Your task to perform on an android device: change the upload size in google photos Image 0: 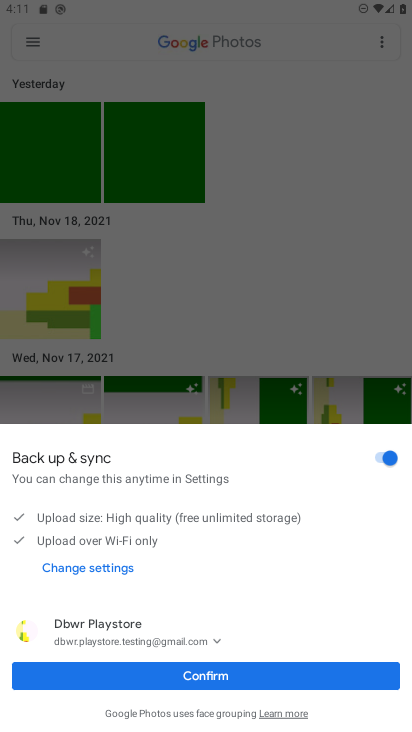
Step 0: click (117, 566)
Your task to perform on an android device: change the upload size in google photos Image 1: 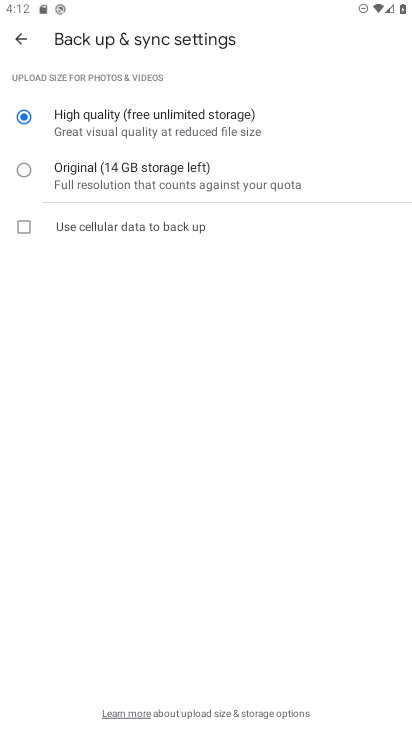
Step 1: click (129, 161)
Your task to perform on an android device: change the upload size in google photos Image 2: 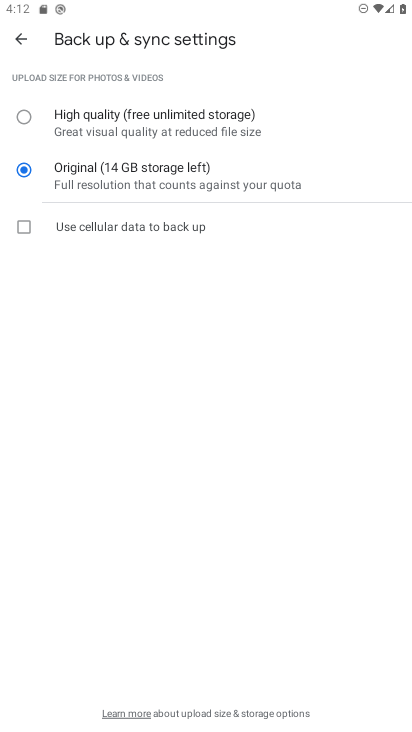
Step 2: task complete